Your task to perform on an android device: turn off notifications in google photos Image 0: 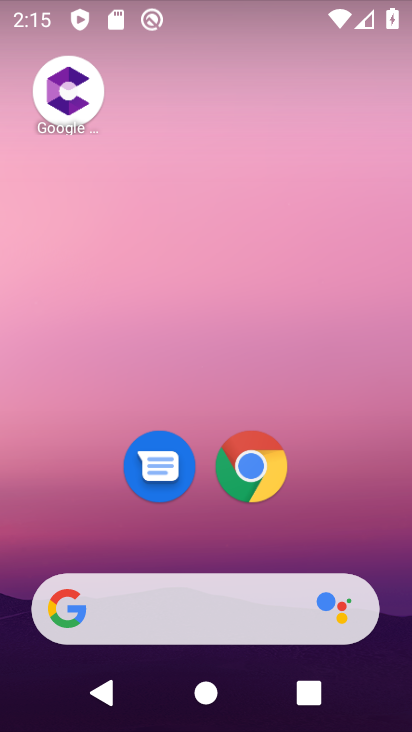
Step 0: drag from (313, 546) to (322, 108)
Your task to perform on an android device: turn off notifications in google photos Image 1: 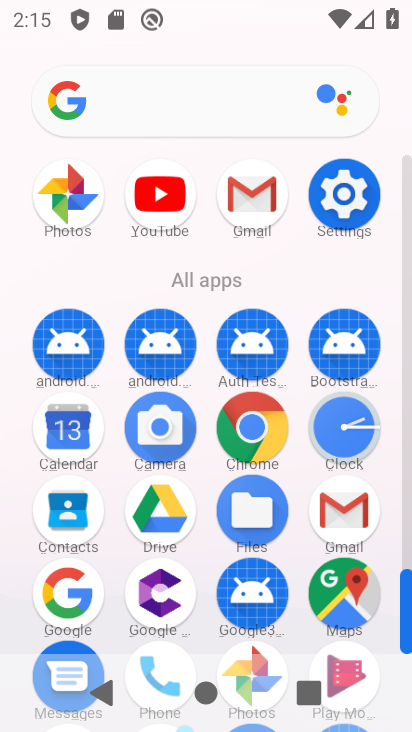
Step 1: drag from (215, 549) to (240, 223)
Your task to perform on an android device: turn off notifications in google photos Image 2: 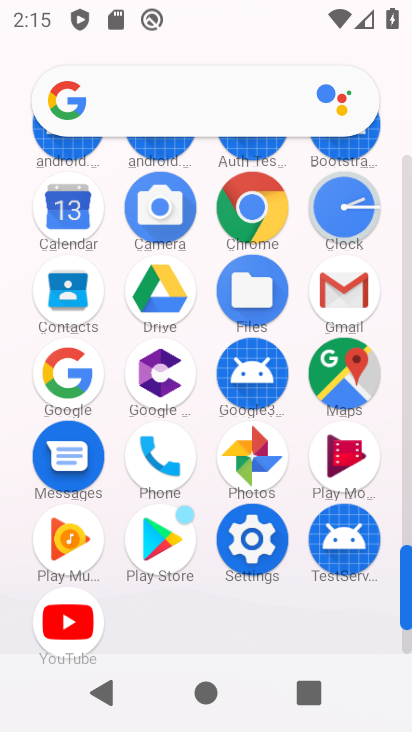
Step 2: click (255, 485)
Your task to perform on an android device: turn off notifications in google photos Image 3: 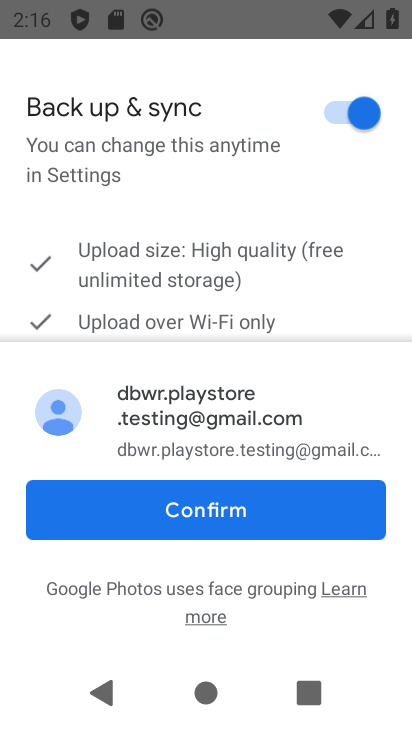
Step 3: click (257, 498)
Your task to perform on an android device: turn off notifications in google photos Image 4: 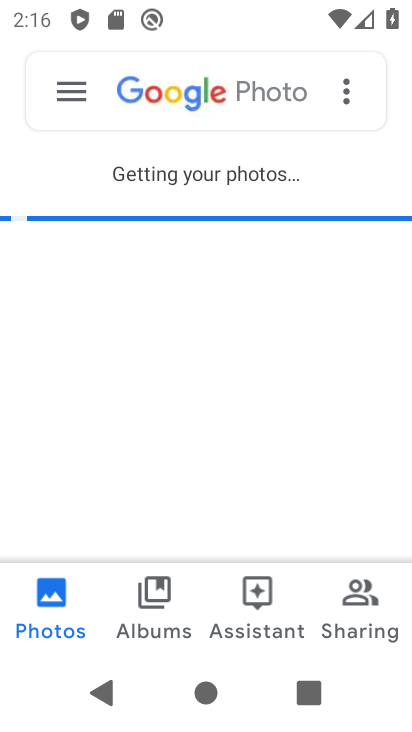
Step 4: click (25, 78)
Your task to perform on an android device: turn off notifications in google photos Image 5: 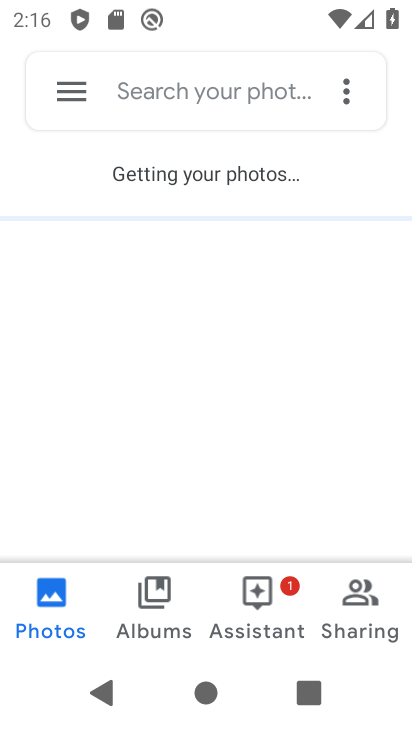
Step 5: click (61, 99)
Your task to perform on an android device: turn off notifications in google photos Image 6: 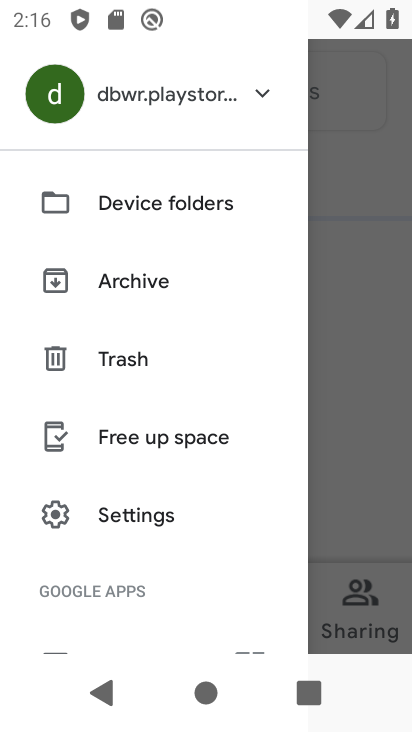
Step 6: drag from (198, 519) to (206, 278)
Your task to perform on an android device: turn off notifications in google photos Image 7: 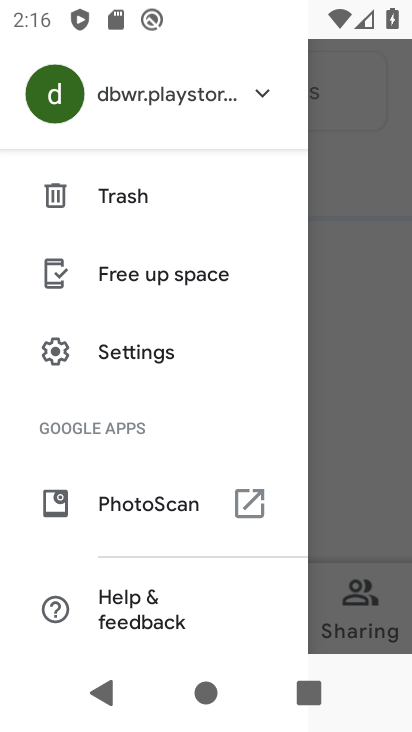
Step 7: click (178, 368)
Your task to perform on an android device: turn off notifications in google photos Image 8: 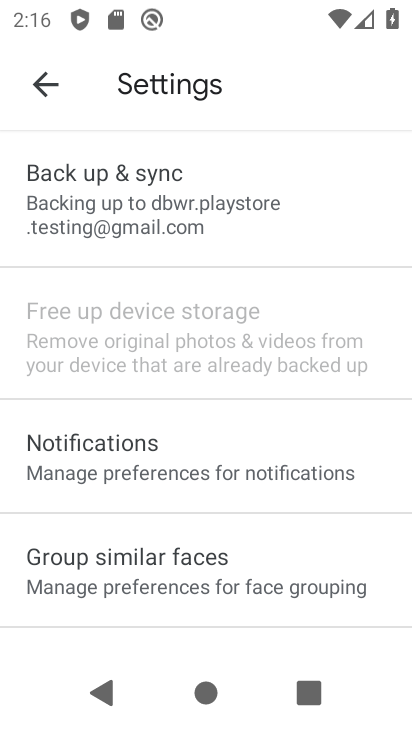
Step 8: click (208, 430)
Your task to perform on an android device: turn off notifications in google photos Image 9: 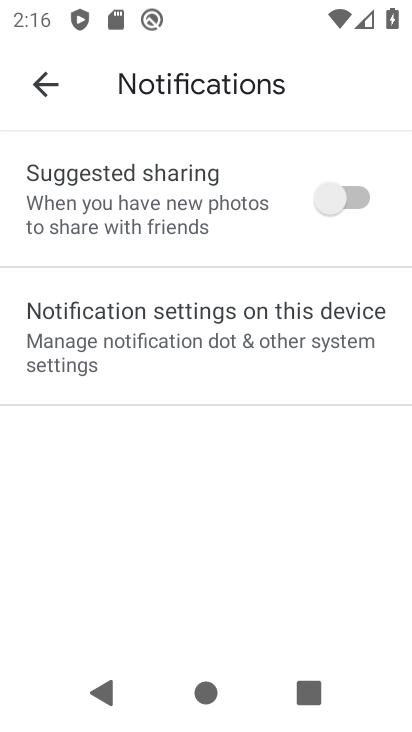
Step 9: click (217, 350)
Your task to perform on an android device: turn off notifications in google photos Image 10: 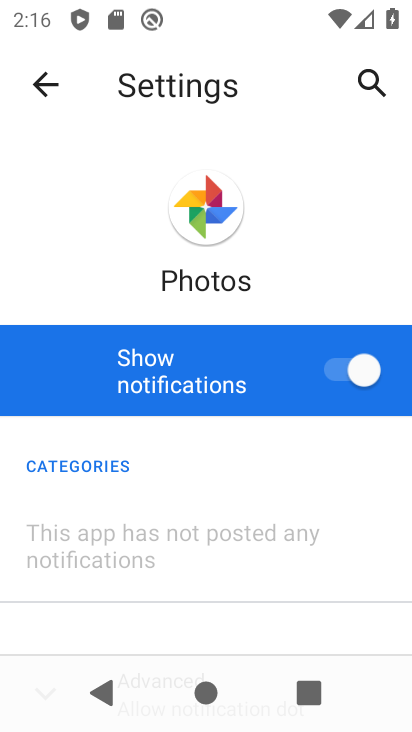
Step 10: click (365, 372)
Your task to perform on an android device: turn off notifications in google photos Image 11: 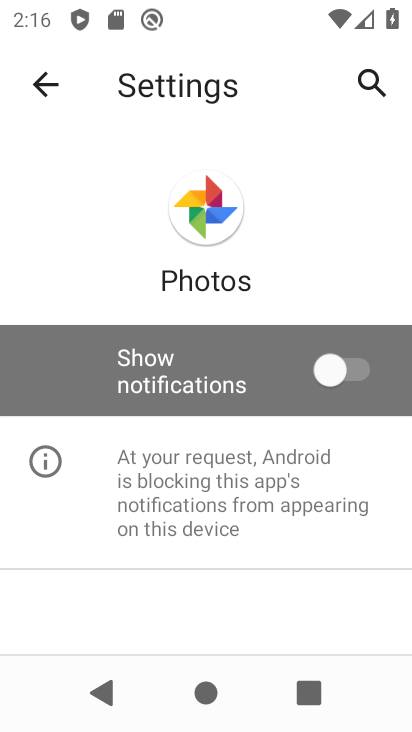
Step 11: task complete